Your task to perform on an android device: turn off smart reply in the gmail app Image 0: 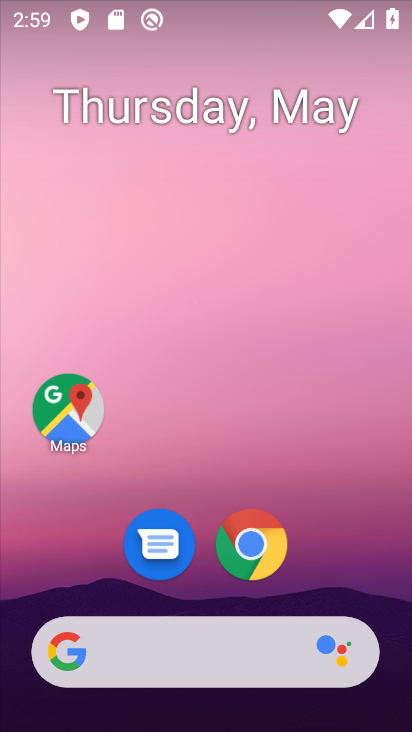
Step 0: drag from (196, 608) to (258, 108)
Your task to perform on an android device: turn off smart reply in the gmail app Image 1: 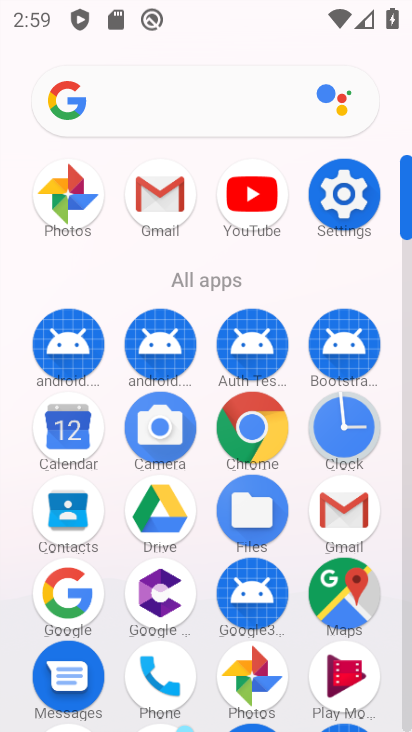
Step 1: click (333, 508)
Your task to perform on an android device: turn off smart reply in the gmail app Image 2: 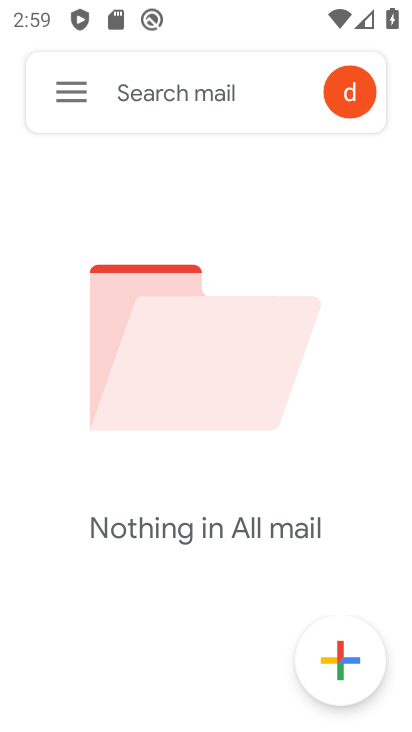
Step 2: click (64, 101)
Your task to perform on an android device: turn off smart reply in the gmail app Image 3: 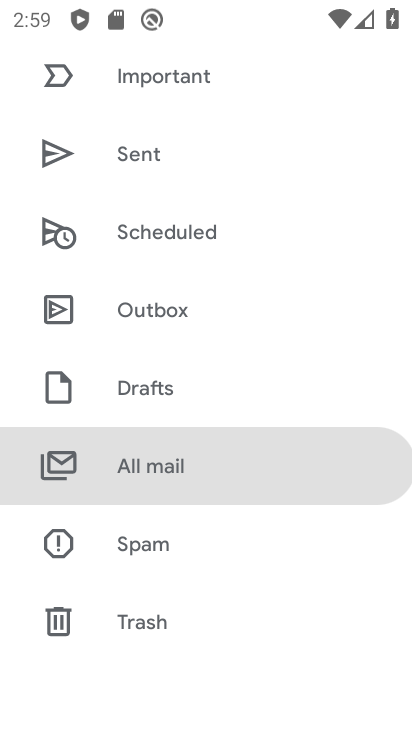
Step 3: drag from (201, 629) to (350, 195)
Your task to perform on an android device: turn off smart reply in the gmail app Image 4: 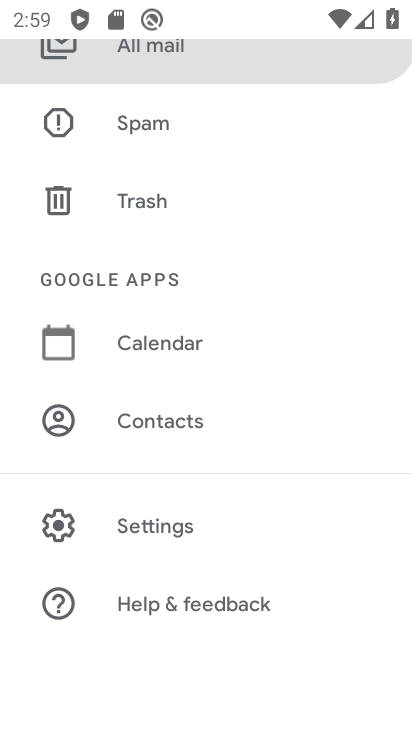
Step 4: click (231, 531)
Your task to perform on an android device: turn off smart reply in the gmail app Image 5: 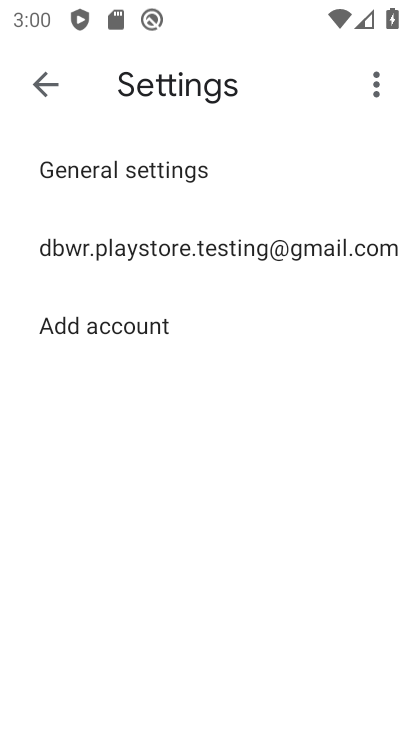
Step 5: click (271, 252)
Your task to perform on an android device: turn off smart reply in the gmail app Image 6: 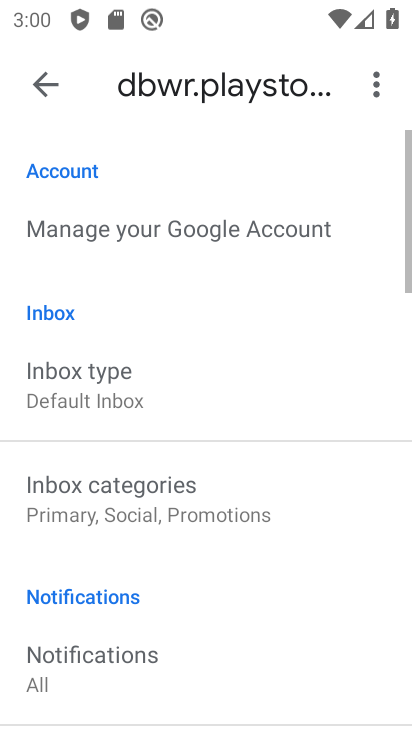
Step 6: drag from (207, 642) to (361, 107)
Your task to perform on an android device: turn off smart reply in the gmail app Image 7: 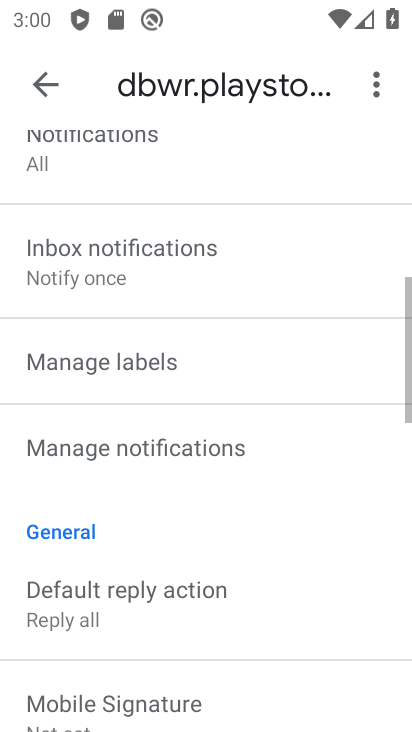
Step 7: drag from (243, 605) to (398, 84)
Your task to perform on an android device: turn off smart reply in the gmail app Image 8: 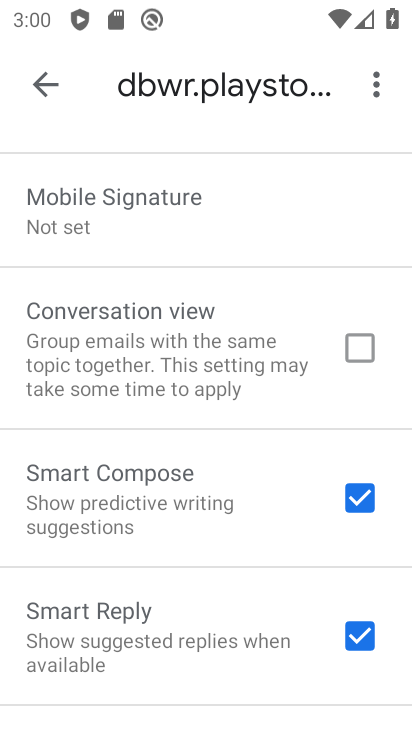
Step 8: click (366, 628)
Your task to perform on an android device: turn off smart reply in the gmail app Image 9: 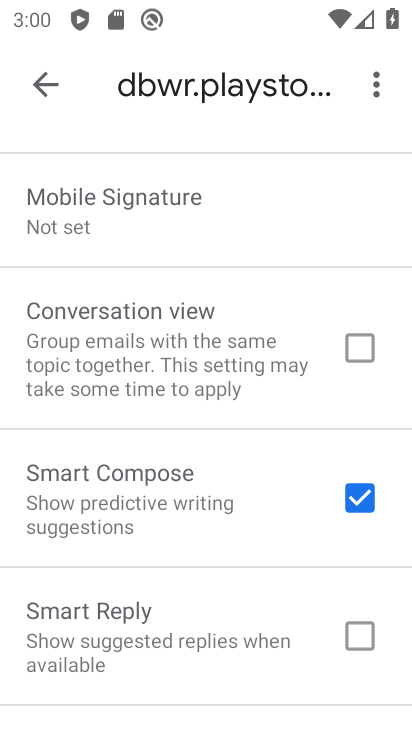
Step 9: task complete